Your task to perform on an android device: Play the last video I watched on Youtube Image 0: 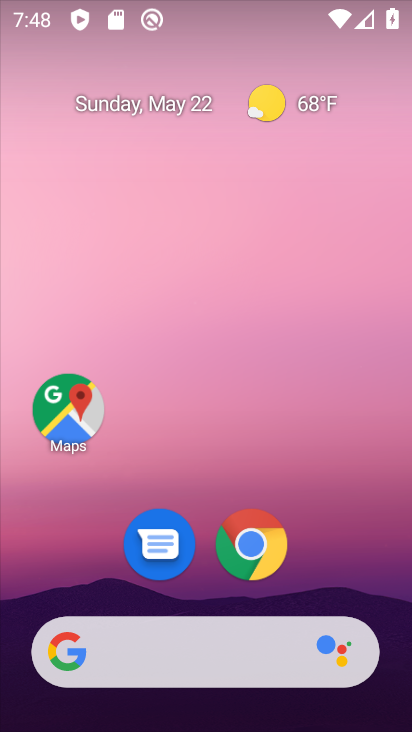
Step 0: drag from (386, 697) to (370, 279)
Your task to perform on an android device: Play the last video I watched on Youtube Image 1: 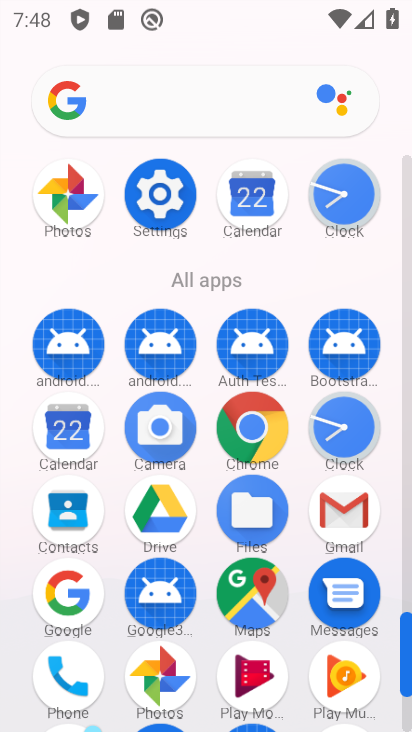
Step 1: drag from (403, 623) to (400, 521)
Your task to perform on an android device: Play the last video I watched on Youtube Image 2: 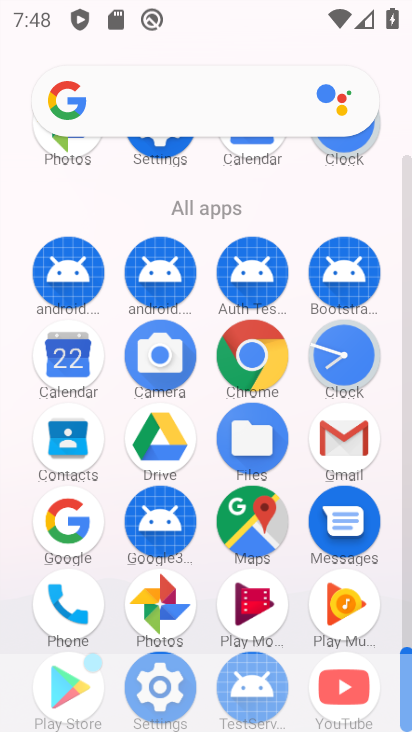
Step 2: click (332, 687)
Your task to perform on an android device: Play the last video I watched on Youtube Image 3: 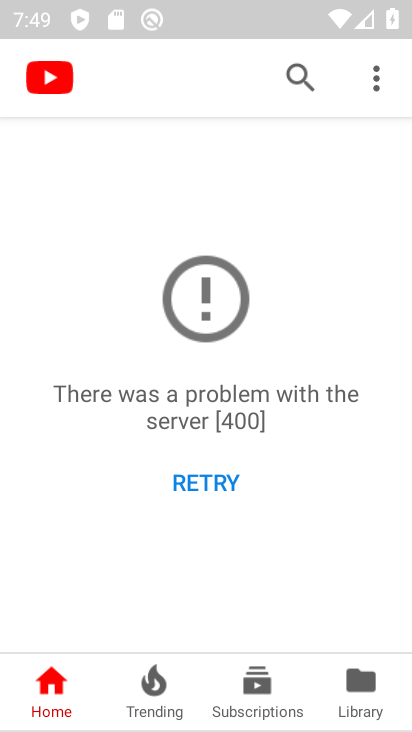
Step 3: click (348, 698)
Your task to perform on an android device: Play the last video I watched on Youtube Image 4: 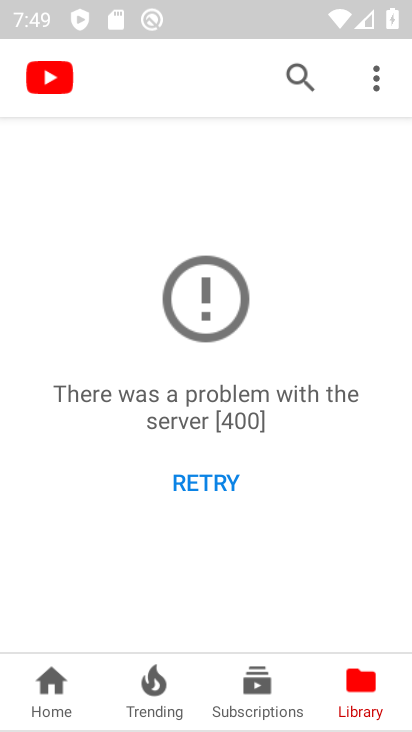
Step 4: task complete